Your task to perform on an android device: check google app version Image 0: 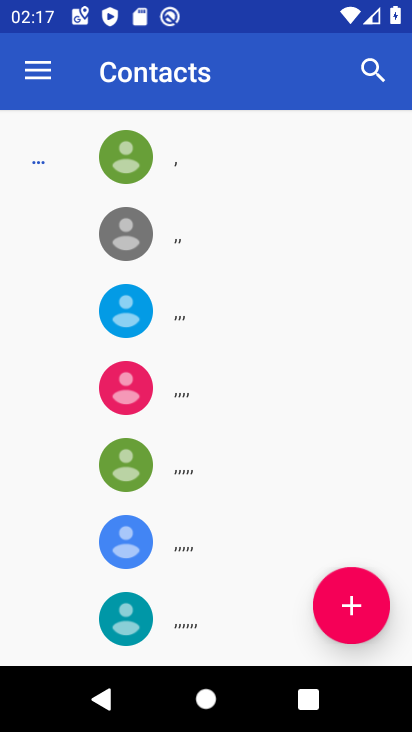
Step 0: press home button
Your task to perform on an android device: check google app version Image 1: 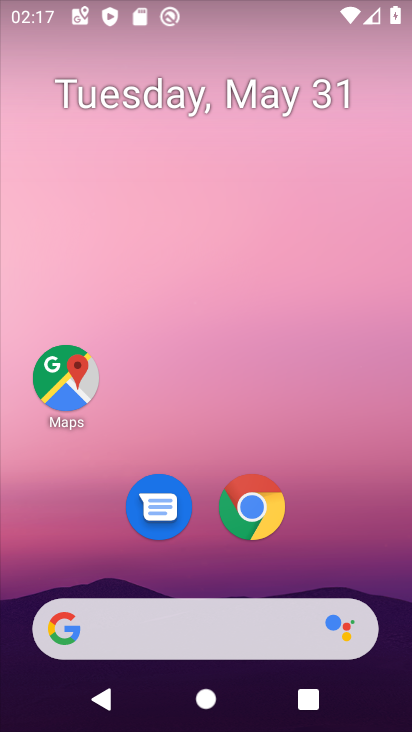
Step 1: click (165, 625)
Your task to perform on an android device: check google app version Image 2: 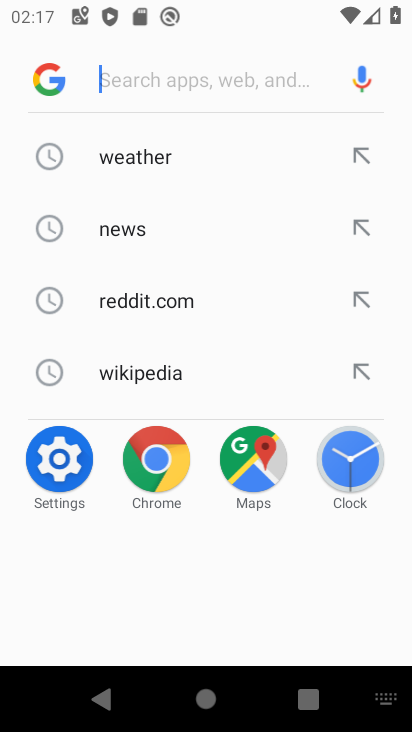
Step 2: click (42, 65)
Your task to perform on an android device: check google app version Image 3: 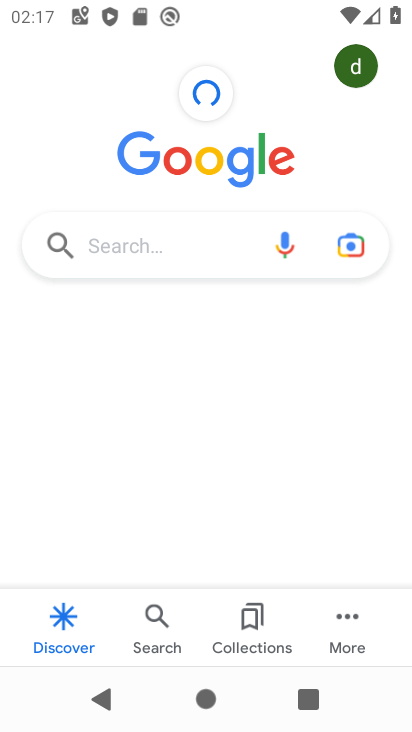
Step 3: click (347, 620)
Your task to perform on an android device: check google app version Image 4: 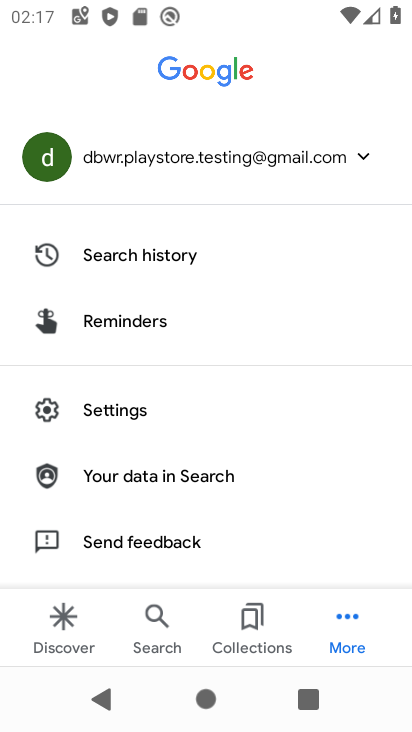
Step 4: click (88, 400)
Your task to perform on an android device: check google app version Image 5: 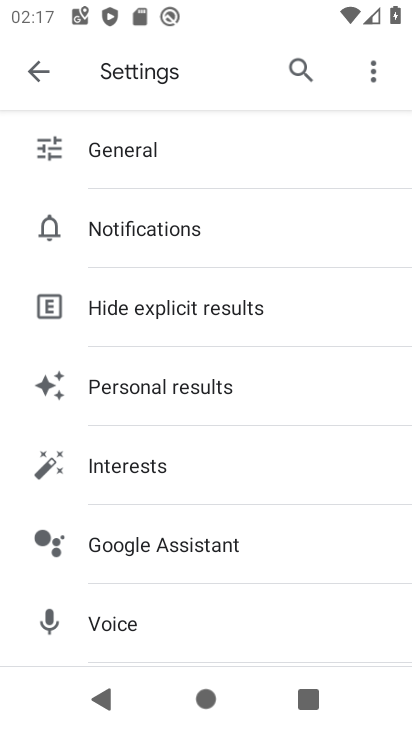
Step 5: drag from (123, 612) to (100, 189)
Your task to perform on an android device: check google app version Image 6: 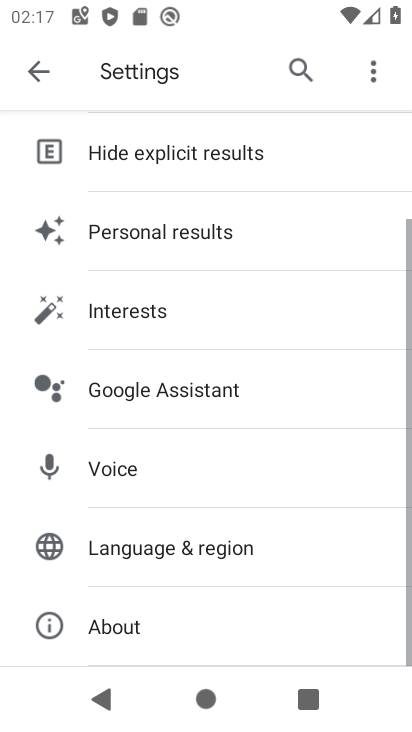
Step 6: drag from (108, 600) to (92, 200)
Your task to perform on an android device: check google app version Image 7: 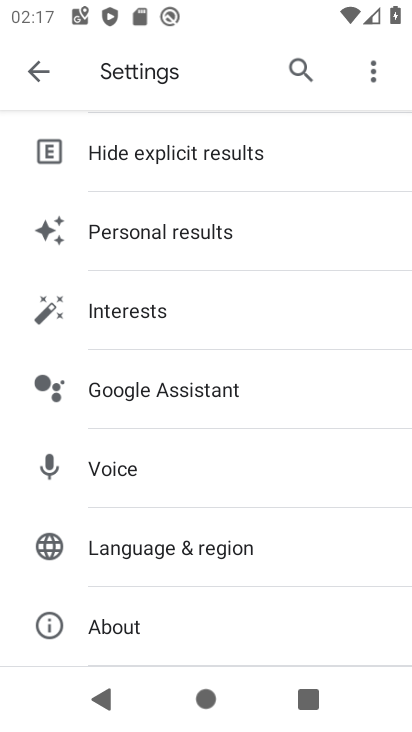
Step 7: click (41, 604)
Your task to perform on an android device: check google app version Image 8: 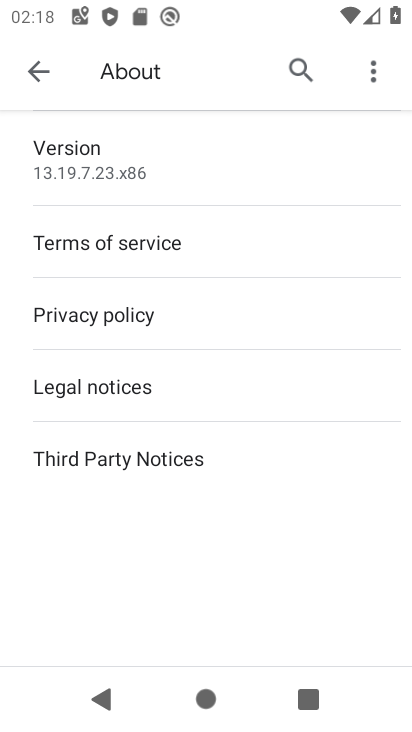
Step 8: task complete